Your task to perform on an android device: Go to settings Image 0: 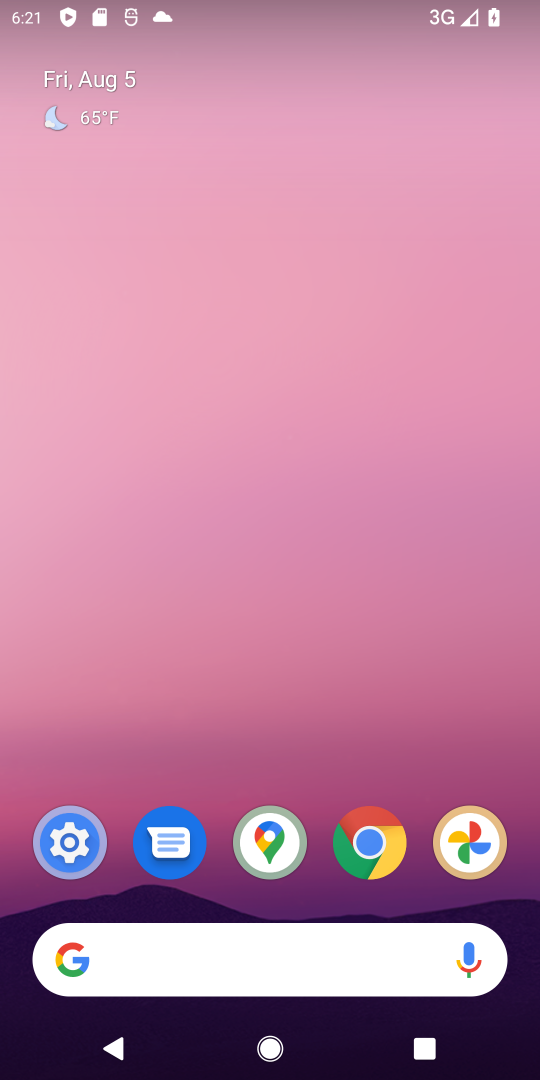
Step 0: click (53, 841)
Your task to perform on an android device: Go to settings Image 1: 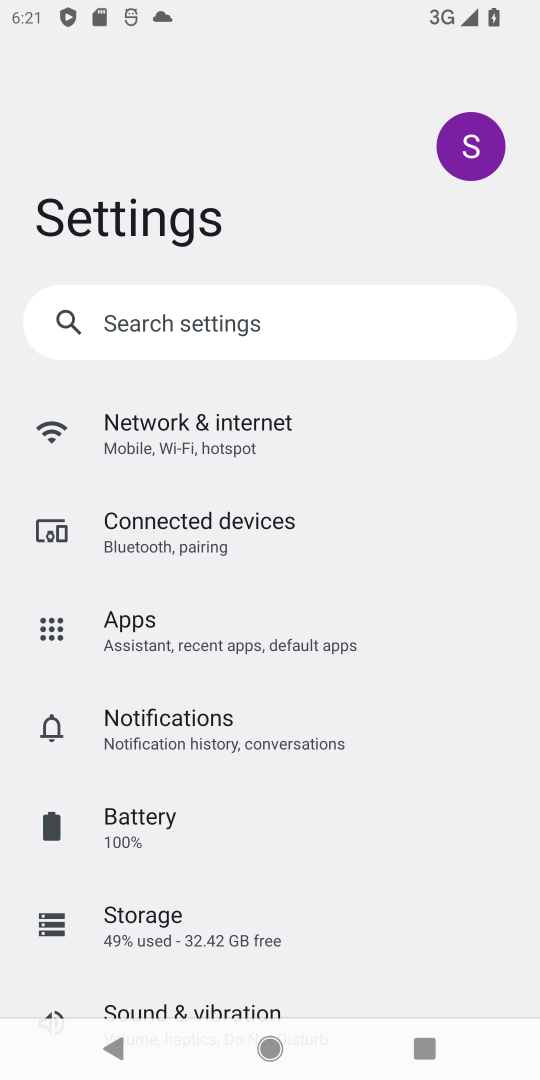
Step 1: task complete